Your task to perform on an android device: When is my next appointment? Image 0: 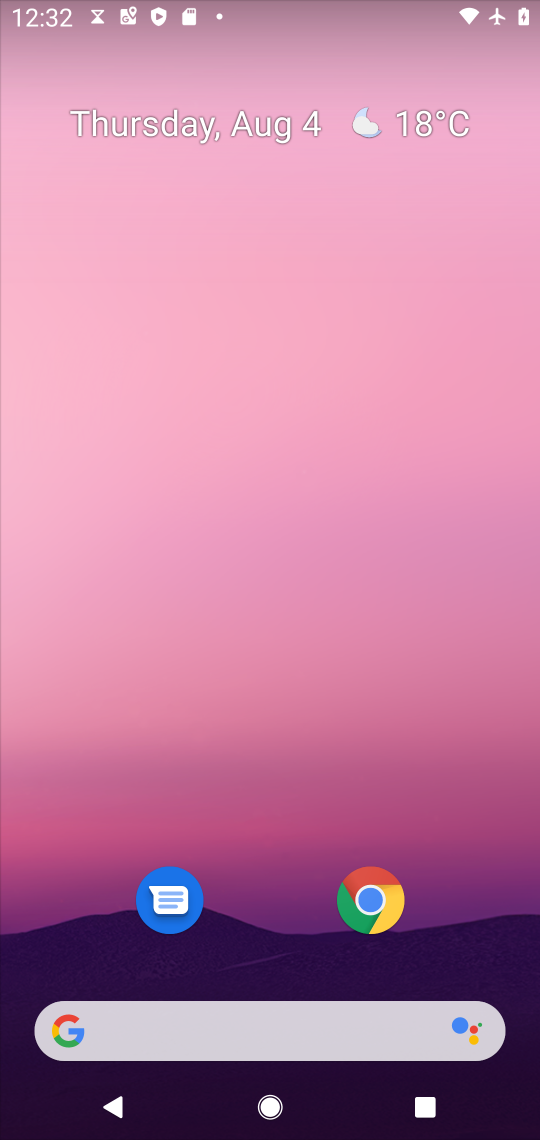
Step 0: press home button
Your task to perform on an android device: When is my next appointment? Image 1: 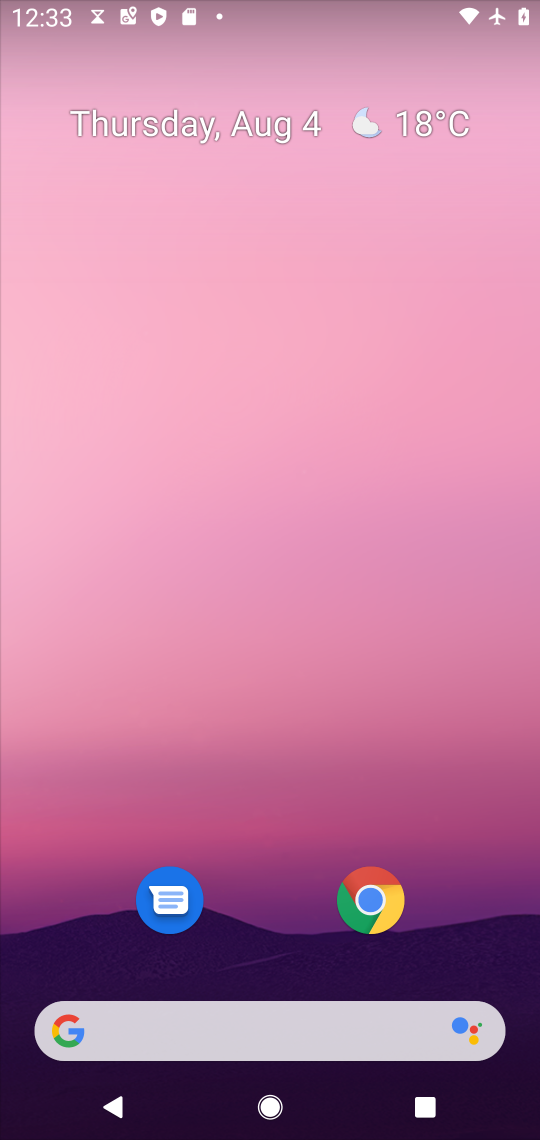
Step 1: drag from (264, 968) to (446, 214)
Your task to perform on an android device: When is my next appointment? Image 2: 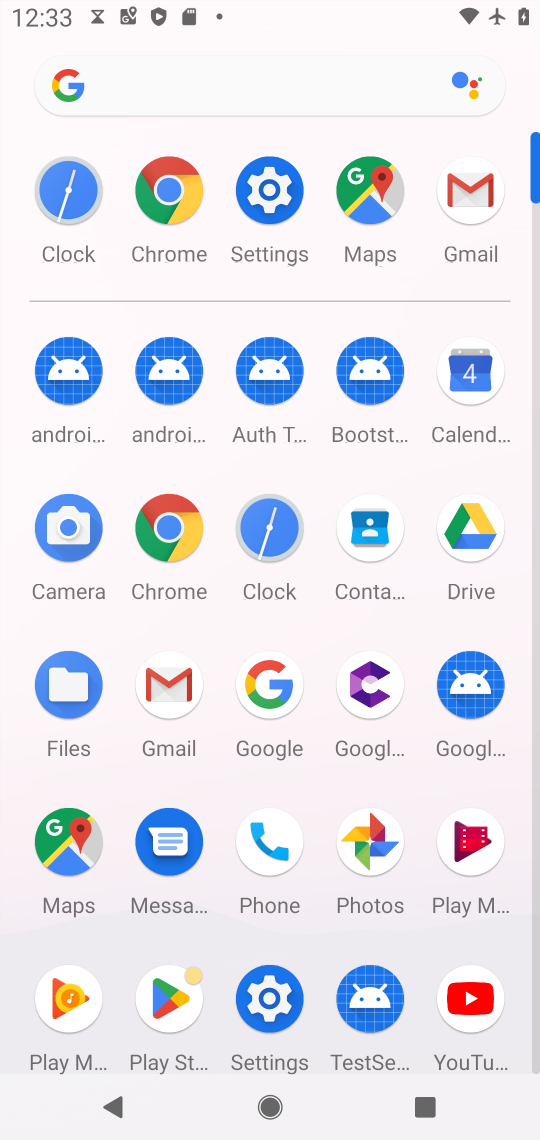
Step 2: click (471, 384)
Your task to perform on an android device: When is my next appointment? Image 3: 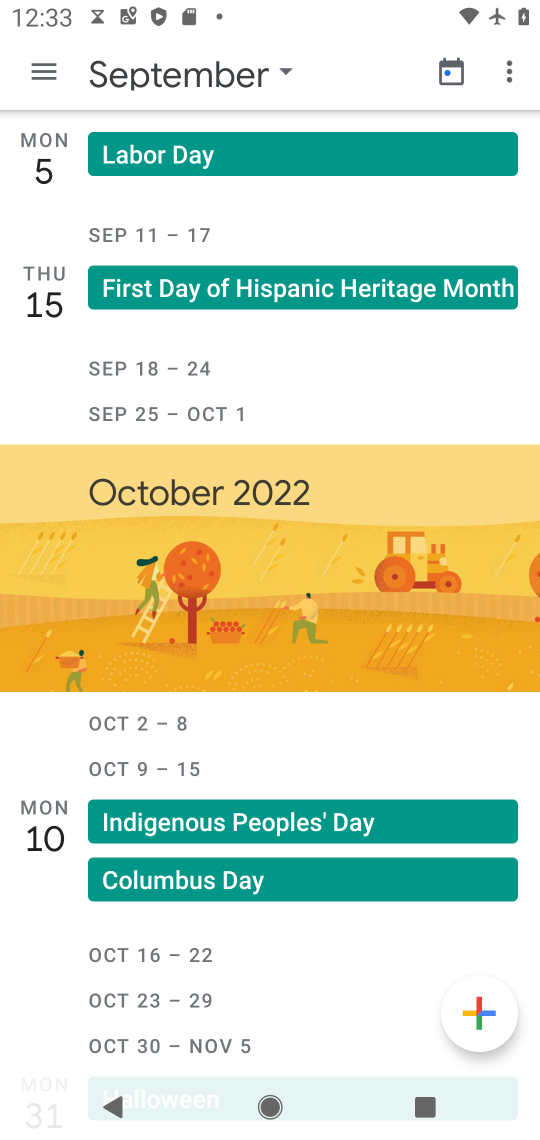
Step 3: click (46, 72)
Your task to perform on an android device: When is my next appointment? Image 4: 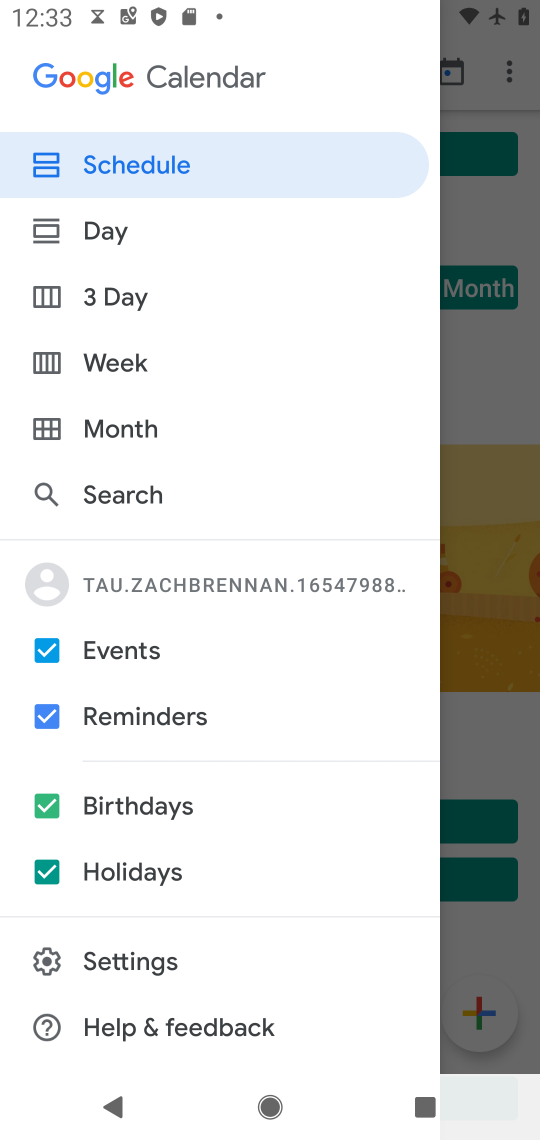
Step 4: click (199, 168)
Your task to perform on an android device: When is my next appointment? Image 5: 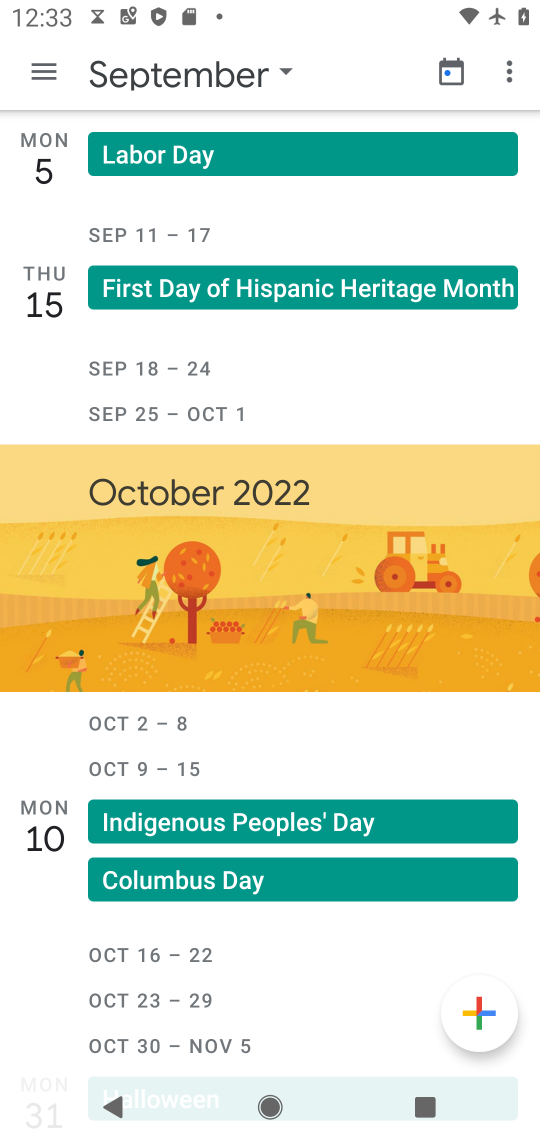
Step 5: task complete